Your task to perform on an android device: turn off picture-in-picture Image 0: 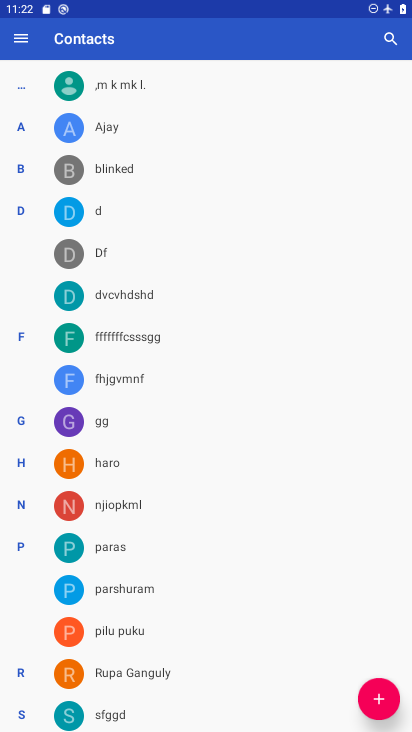
Step 0: press home button
Your task to perform on an android device: turn off picture-in-picture Image 1: 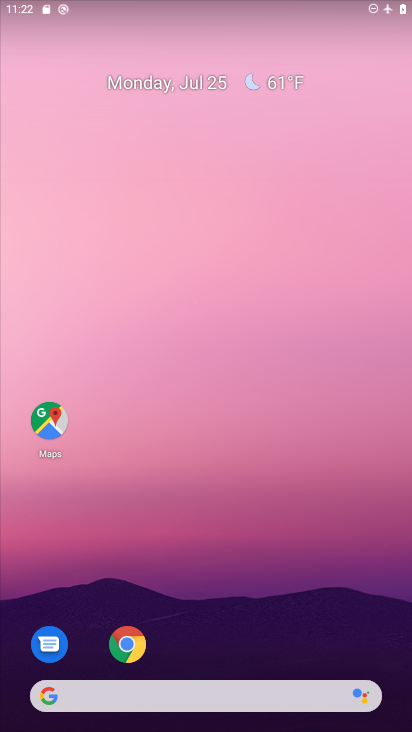
Step 1: drag from (256, 678) to (286, 81)
Your task to perform on an android device: turn off picture-in-picture Image 2: 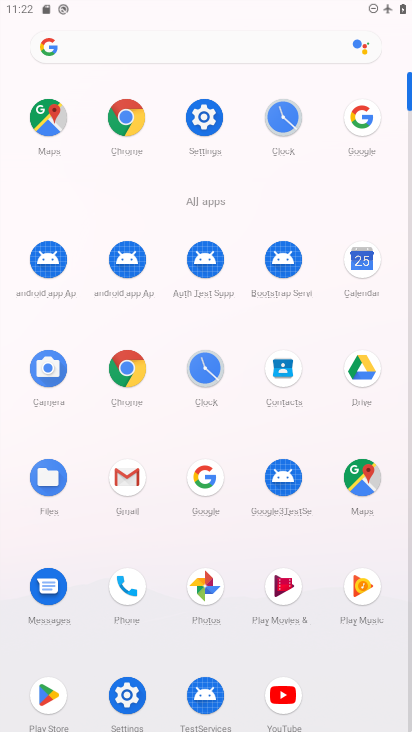
Step 2: click (132, 118)
Your task to perform on an android device: turn off picture-in-picture Image 3: 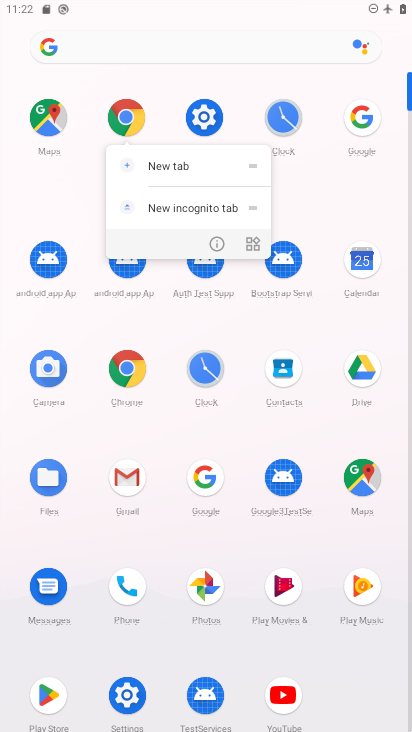
Step 3: click (202, 115)
Your task to perform on an android device: turn off picture-in-picture Image 4: 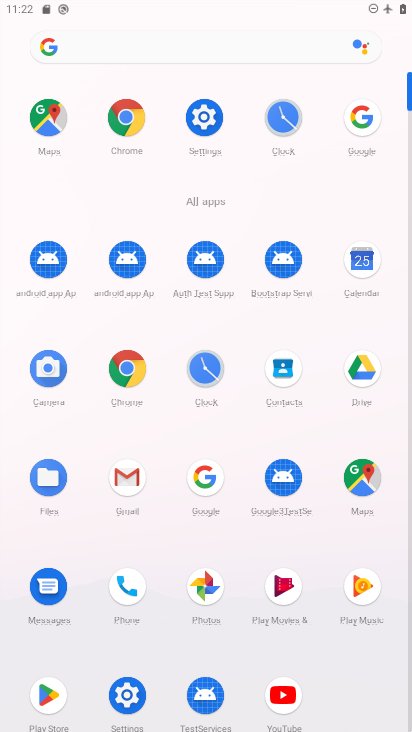
Step 4: click (202, 115)
Your task to perform on an android device: turn off picture-in-picture Image 5: 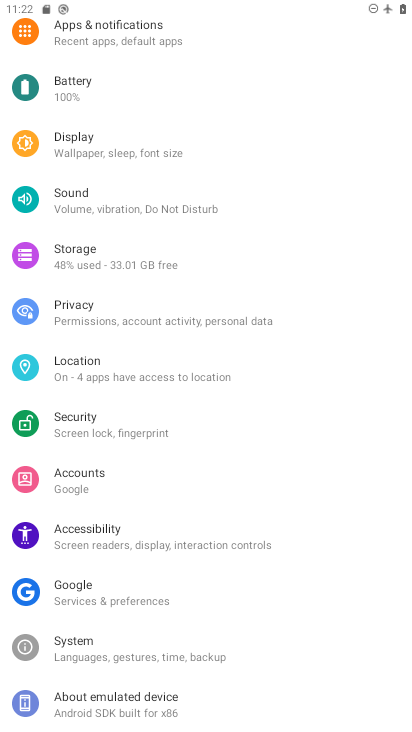
Step 5: drag from (101, 104) to (106, 624)
Your task to perform on an android device: turn off picture-in-picture Image 6: 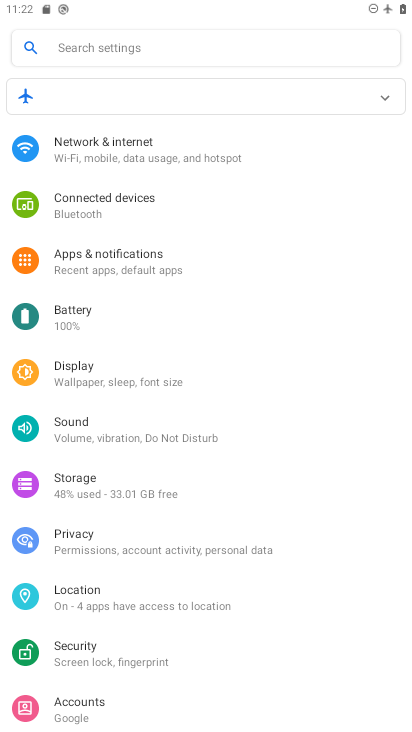
Step 6: click (131, 250)
Your task to perform on an android device: turn off picture-in-picture Image 7: 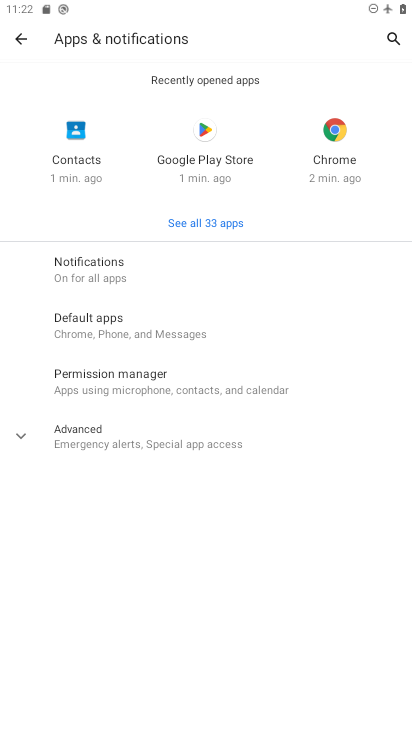
Step 7: click (142, 440)
Your task to perform on an android device: turn off picture-in-picture Image 8: 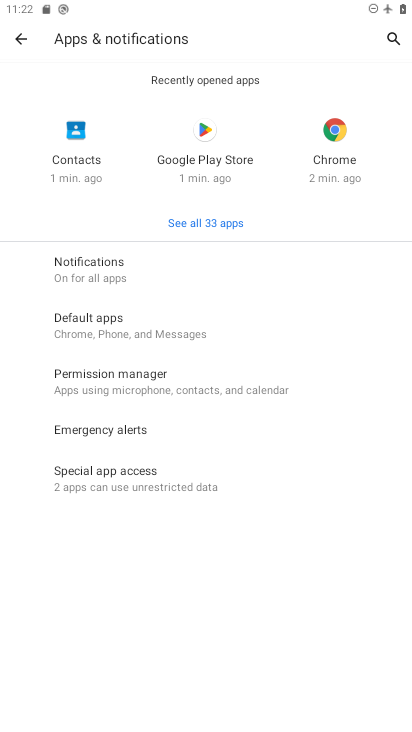
Step 8: click (177, 481)
Your task to perform on an android device: turn off picture-in-picture Image 9: 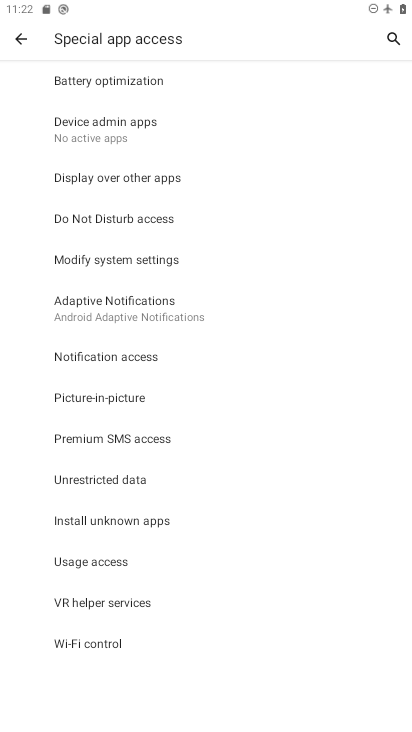
Step 9: click (118, 404)
Your task to perform on an android device: turn off picture-in-picture Image 10: 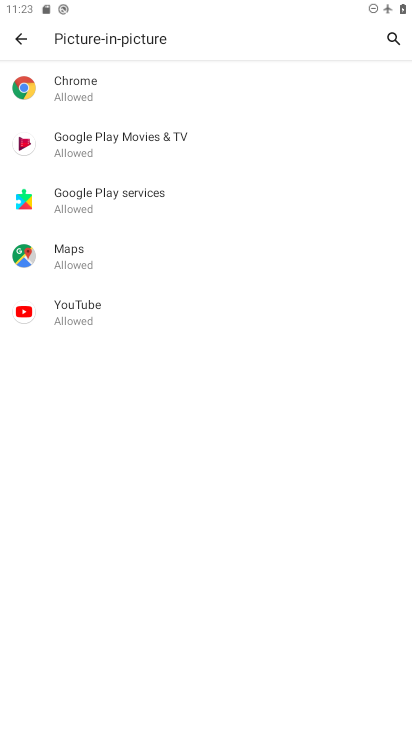
Step 10: click (103, 318)
Your task to perform on an android device: turn off picture-in-picture Image 11: 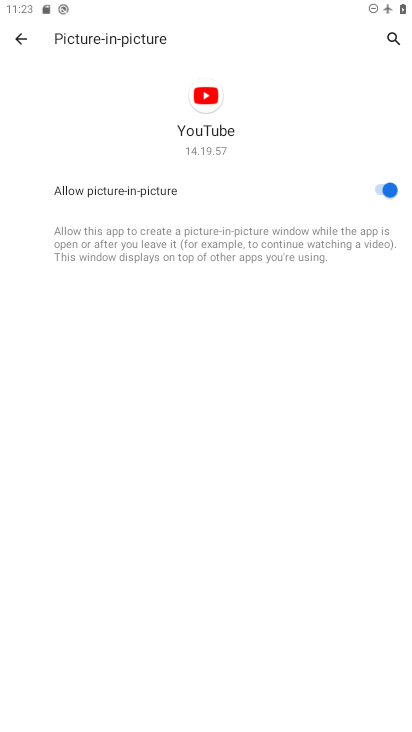
Step 11: click (375, 189)
Your task to perform on an android device: turn off picture-in-picture Image 12: 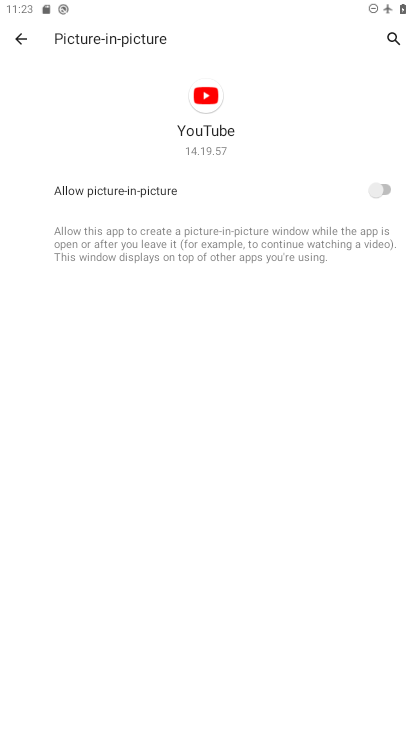
Step 12: task complete